Your task to perform on an android device: Open accessibility settings Image 0: 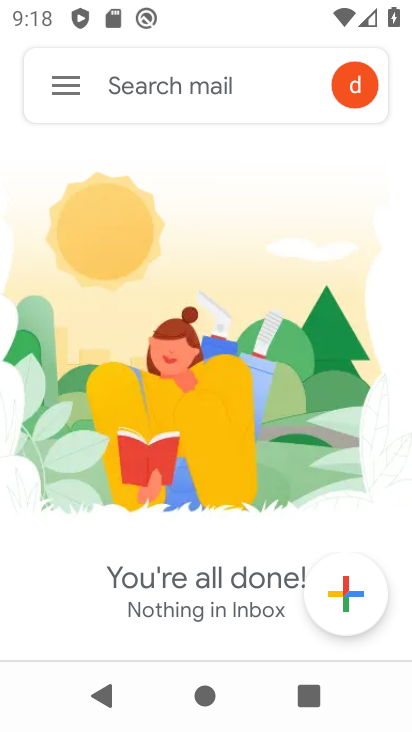
Step 0: press home button
Your task to perform on an android device: Open accessibility settings Image 1: 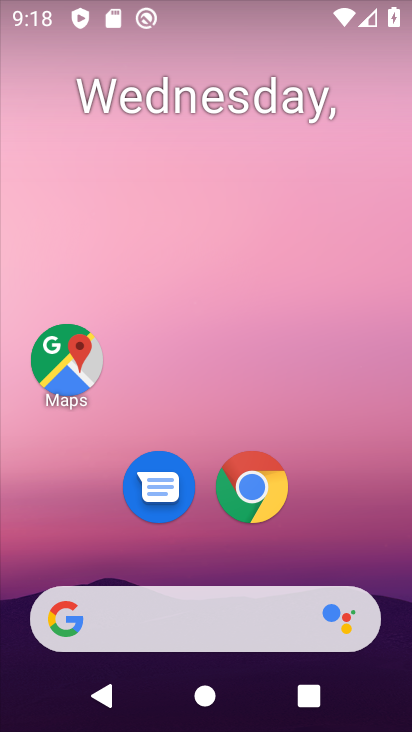
Step 1: drag from (206, 557) to (212, 210)
Your task to perform on an android device: Open accessibility settings Image 2: 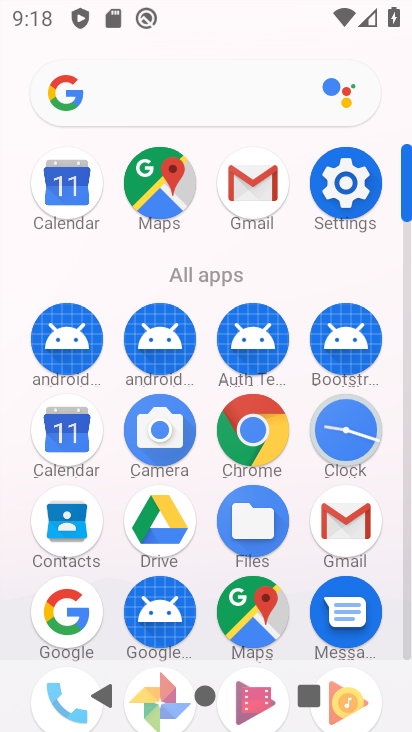
Step 2: click (344, 200)
Your task to perform on an android device: Open accessibility settings Image 3: 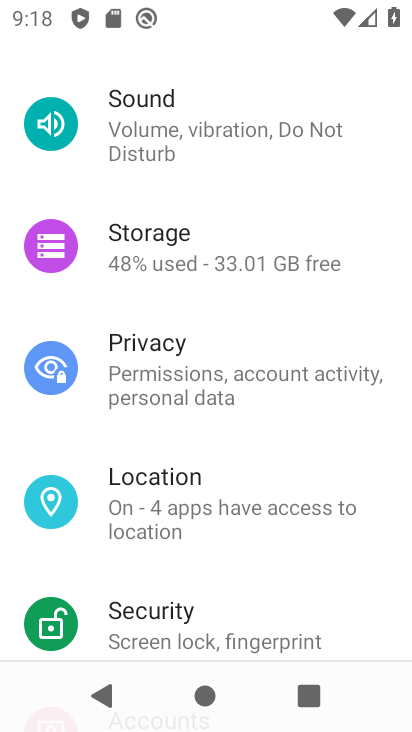
Step 3: drag from (214, 593) to (300, 209)
Your task to perform on an android device: Open accessibility settings Image 4: 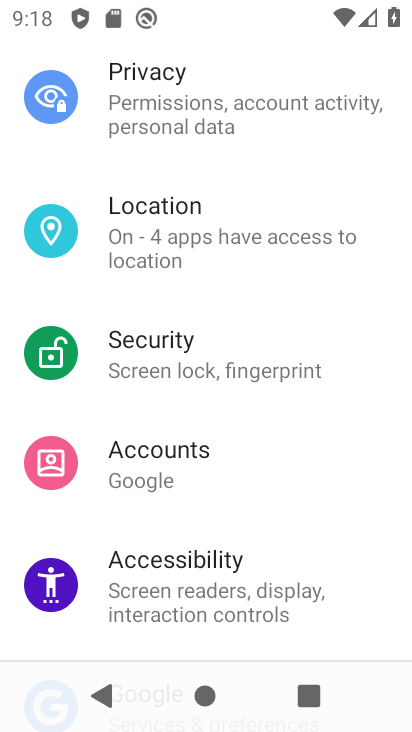
Step 4: click (194, 580)
Your task to perform on an android device: Open accessibility settings Image 5: 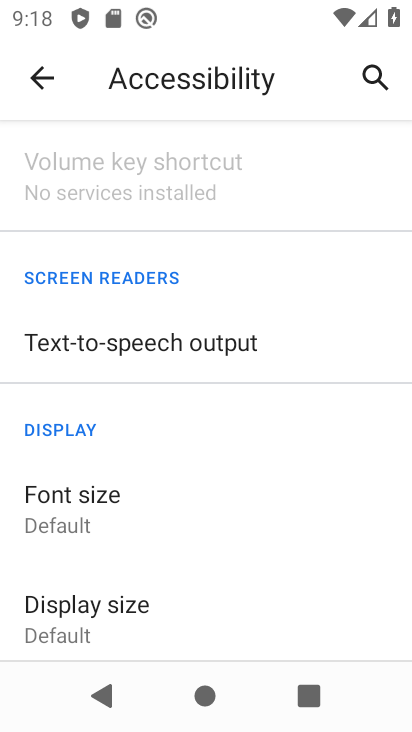
Step 5: task complete